Your task to perform on an android device: turn on data saver in the chrome app Image 0: 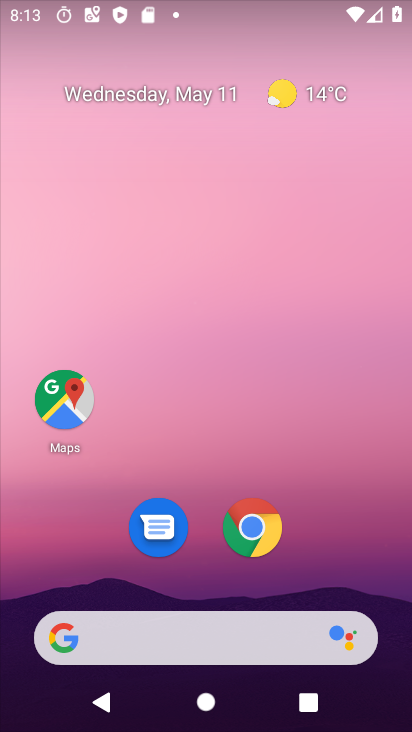
Step 0: click (246, 550)
Your task to perform on an android device: turn on data saver in the chrome app Image 1: 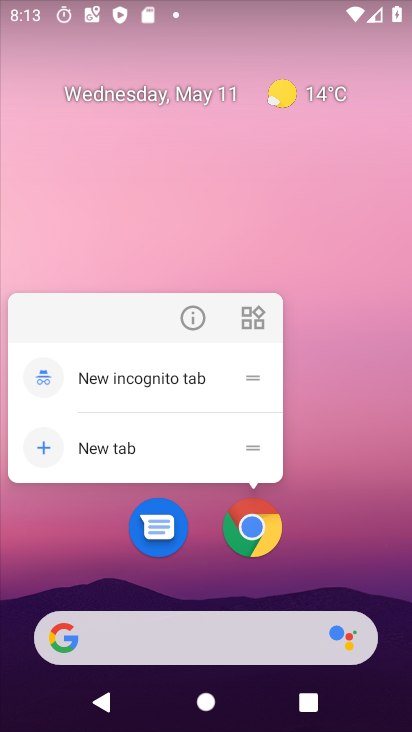
Step 1: click (249, 547)
Your task to perform on an android device: turn on data saver in the chrome app Image 2: 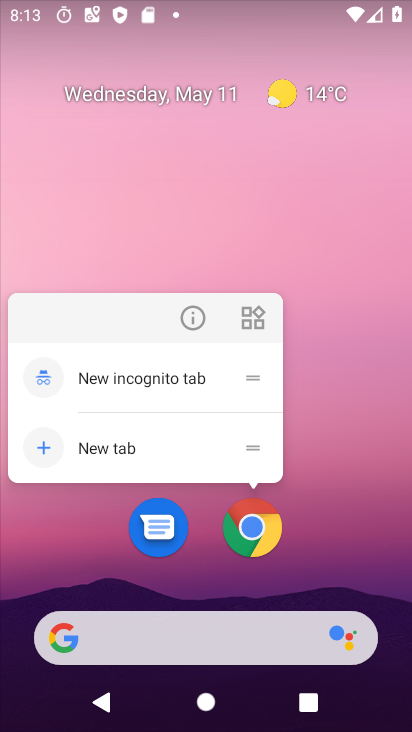
Step 2: click (256, 543)
Your task to perform on an android device: turn on data saver in the chrome app Image 3: 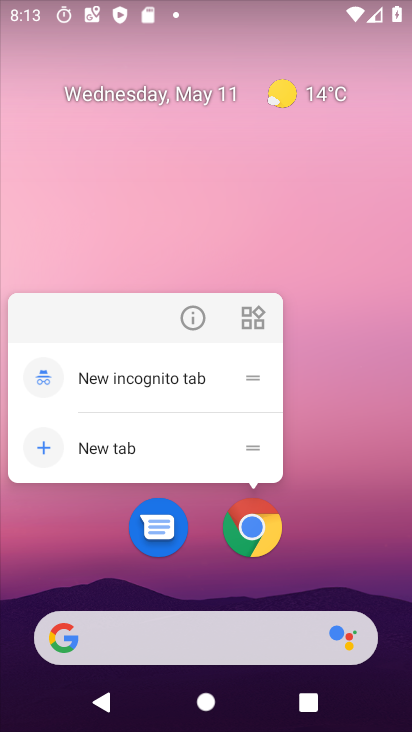
Step 3: click (270, 542)
Your task to perform on an android device: turn on data saver in the chrome app Image 4: 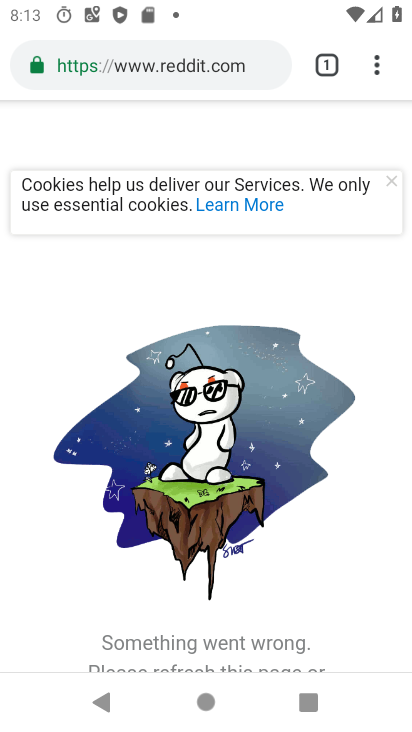
Step 4: click (385, 63)
Your task to perform on an android device: turn on data saver in the chrome app Image 5: 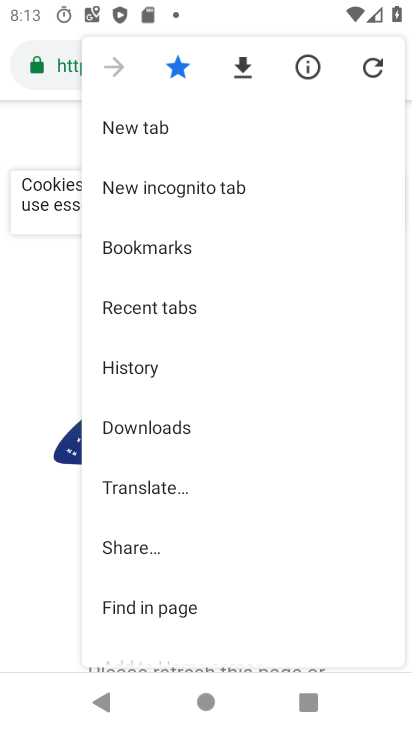
Step 5: drag from (179, 521) to (235, 258)
Your task to perform on an android device: turn on data saver in the chrome app Image 6: 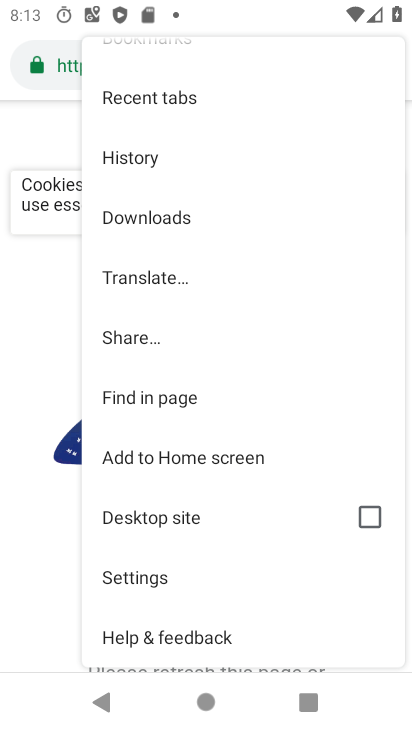
Step 6: drag from (188, 553) to (194, 402)
Your task to perform on an android device: turn on data saver in the chrome app Image 7: 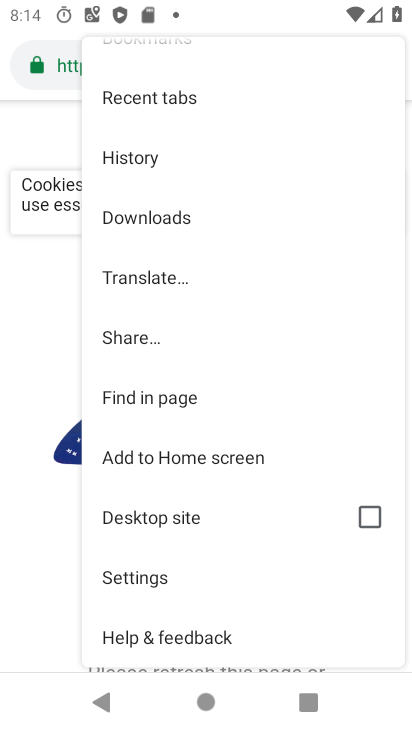
Step 7: click (165, 573)
Your task to perform on an android device: turn on data saver in the chrome app Image 8: 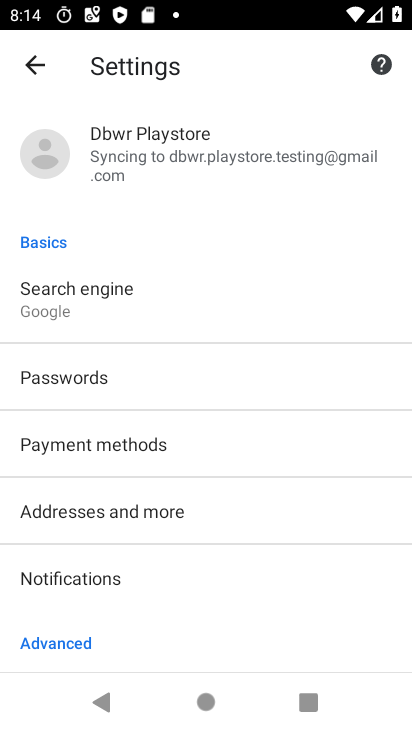
Step 8: drag from (164, 572) to (188, 310)
Your task to perform on an android device: turn on data saver in the chrome app Image 9: 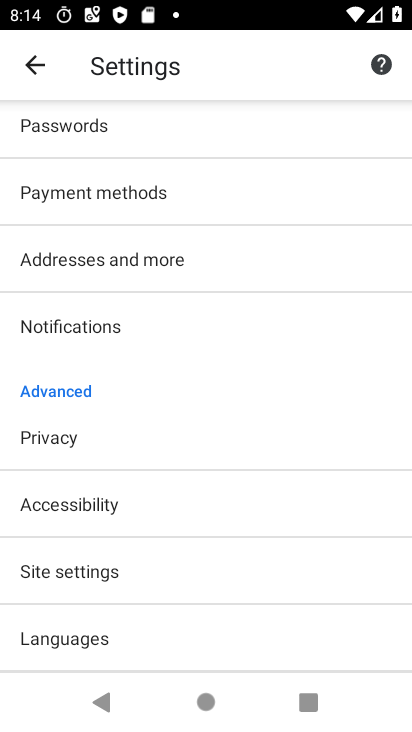
Step 9: drag from (139, 583) to (169, 369)
Your task to perform on an android device: turn on data saver in the chrome app Image 10: 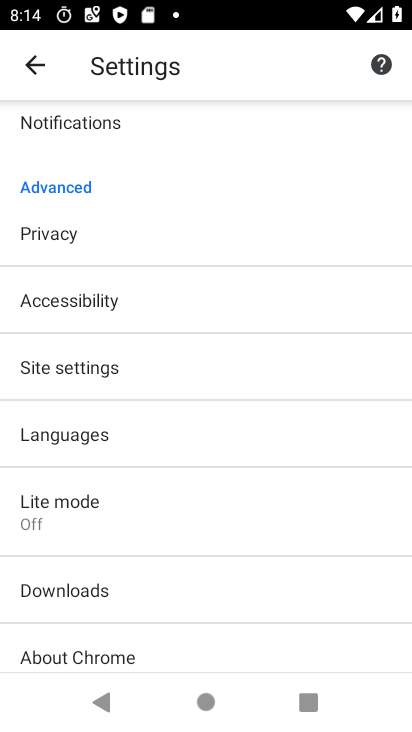
Step 10: click (98, 513)
Your task to perform on an android device: turn on data saver in the chrome app Image 11: 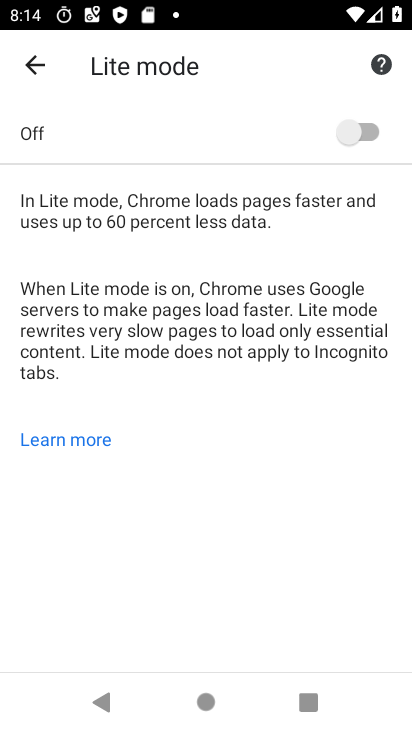
Step 11: click (336, 144)
Your task to perform on an android device: turn on data saver in the chrome app Image 12: 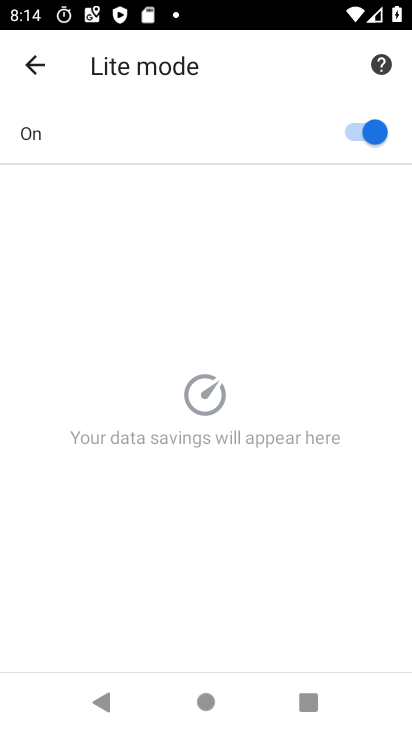
Step 12: task complete